Your task to perform on an android device: When is my next appointment? Image 0: 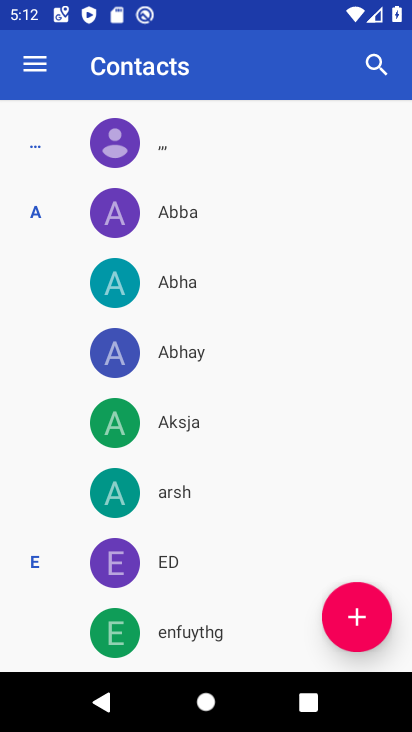
Step 0: press home button
Your task to perform on an android device: When is my next appointment? Image 1: 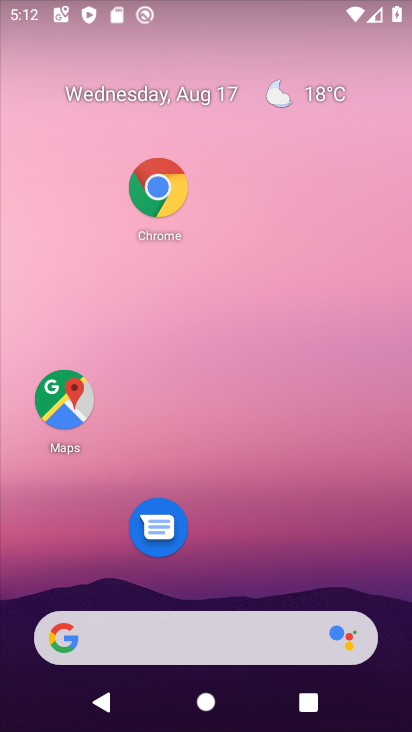
Step 1: click (217, 91)
Your task to perform on an android device: When is my next appointment? Image 2: 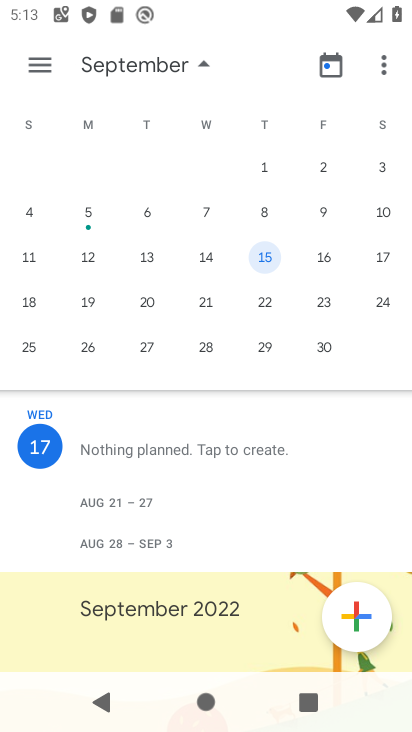
Step 2: task complete